Your task to perform on an android device: search for starred emails in the gmail app Image 0: 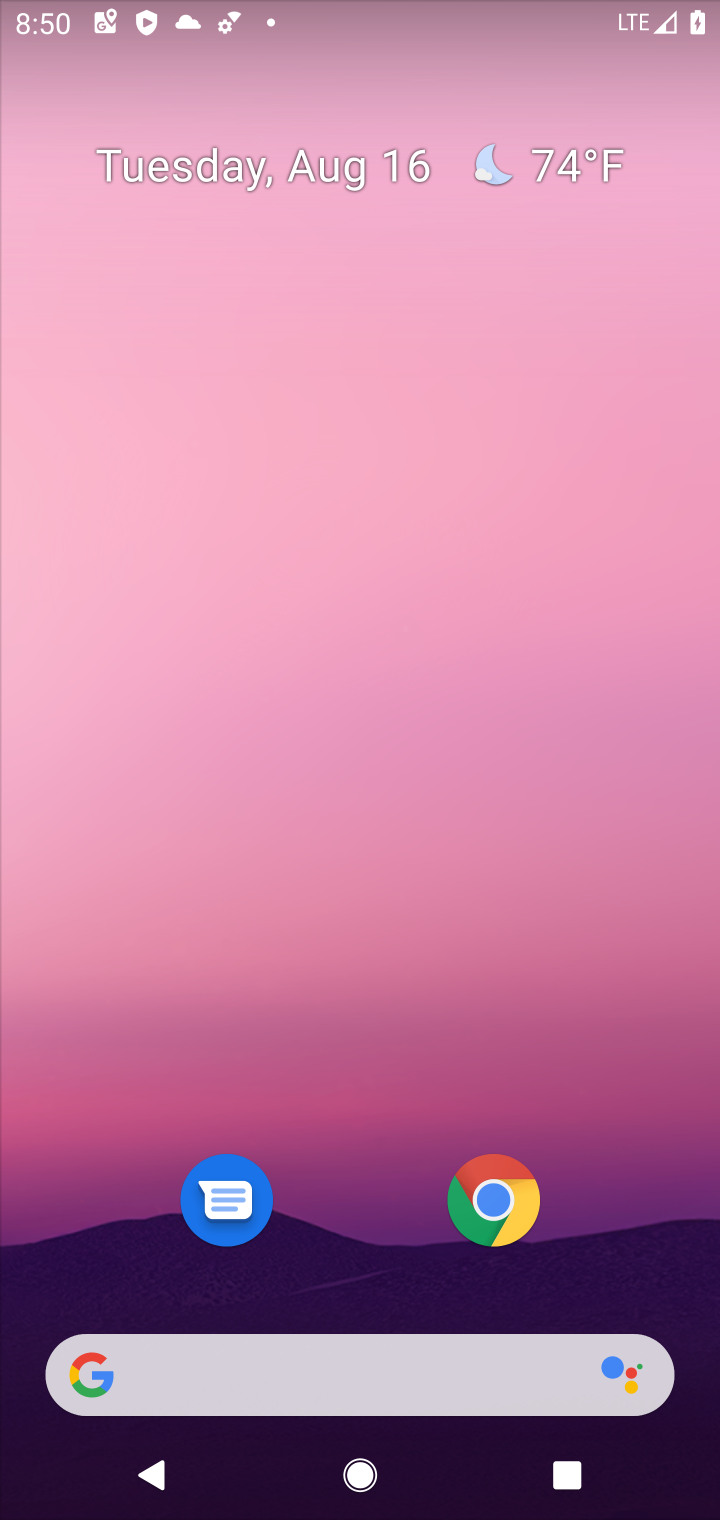
Step 0: drag from (667, 1281) to (622, 493)
Your task to perform on an android device: search for starred emails in the gmail app Image 1: 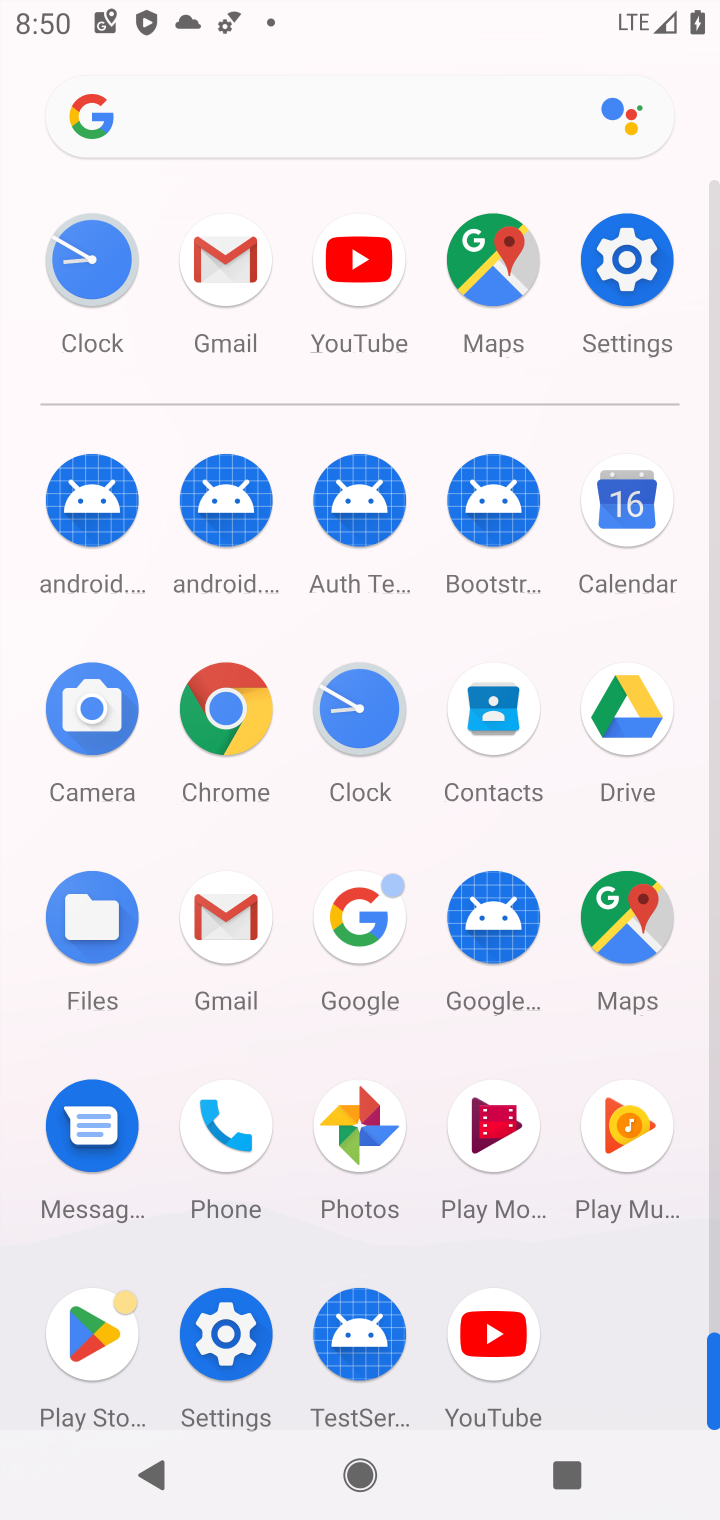
Step 1: click (223, 917)
Your task to perform on an android device: search for starred emails in the gmail app Image 2: 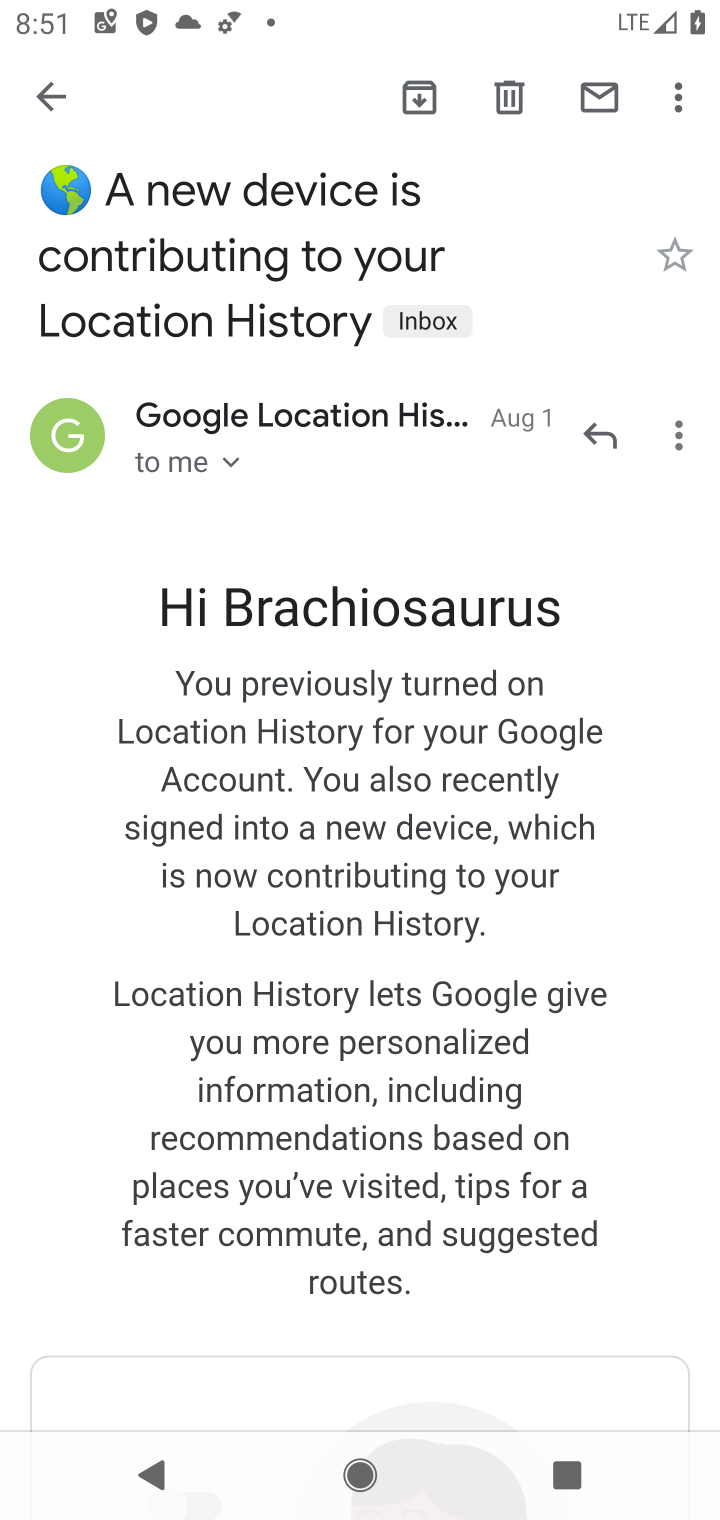
Step 2: press back button
Your task to perform on an android device: search for starred emails in the gmail app Image 3: 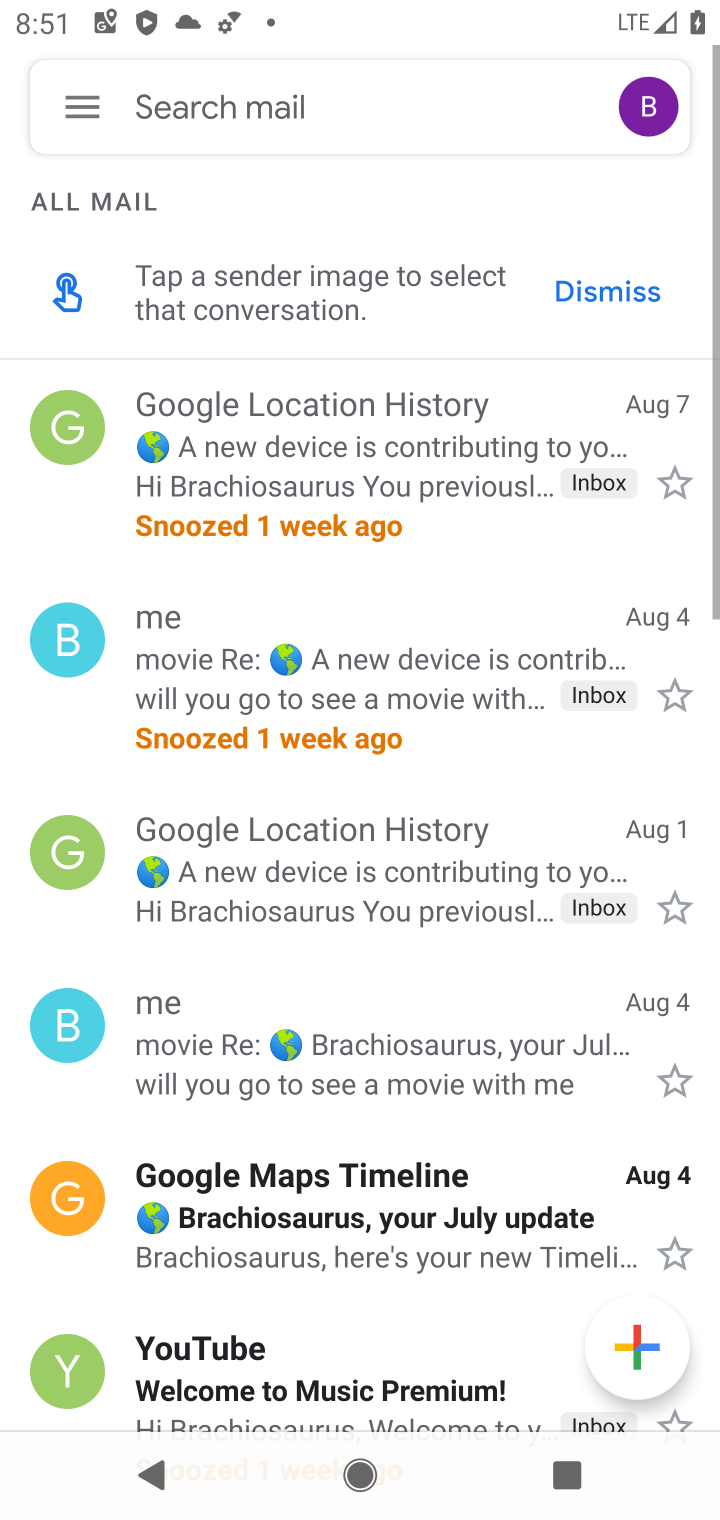
Step 3: press back button
Your task to perform on an android device: search for starred emails in the gmail app Image 4: 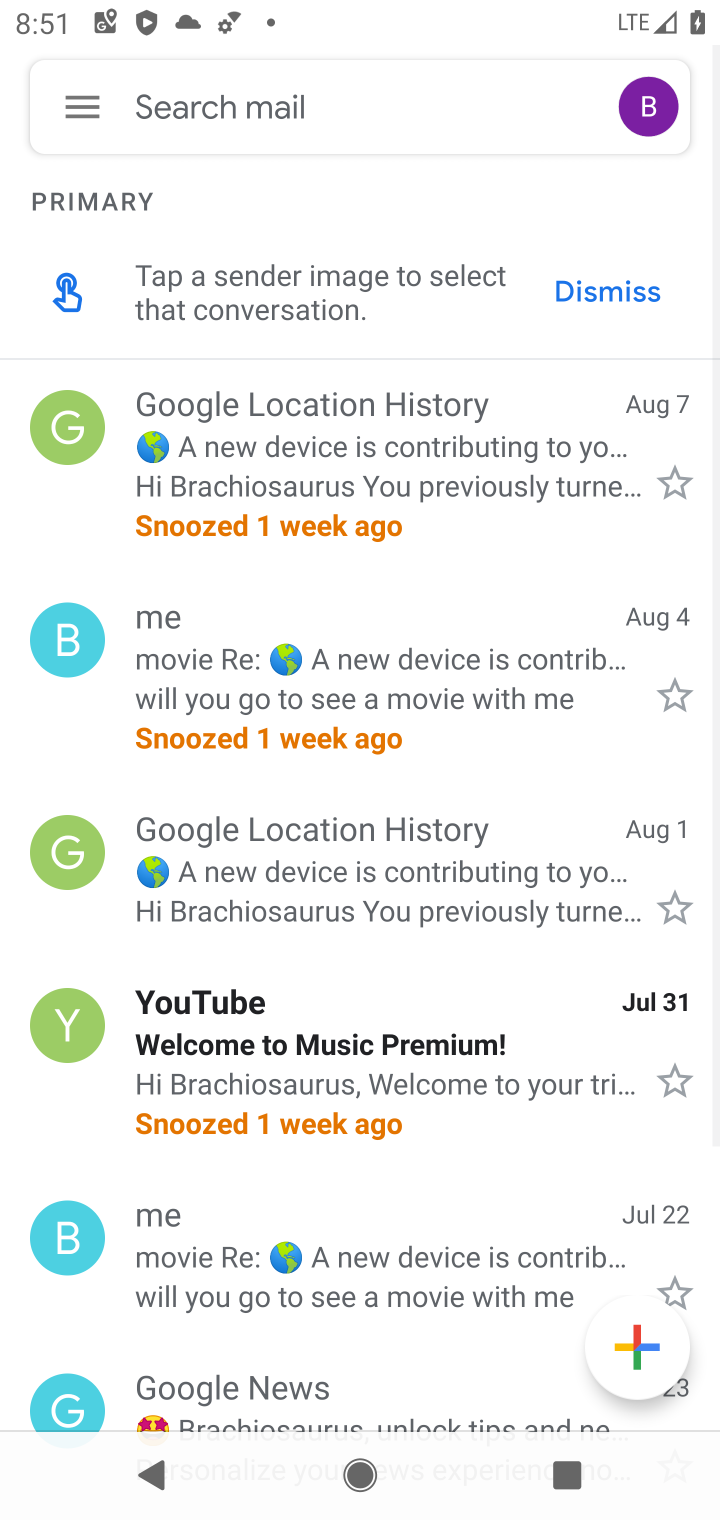
Step 4: click (80, 111)
Your task to perform on an android device: search for starred emails in the gmail app Image 5: 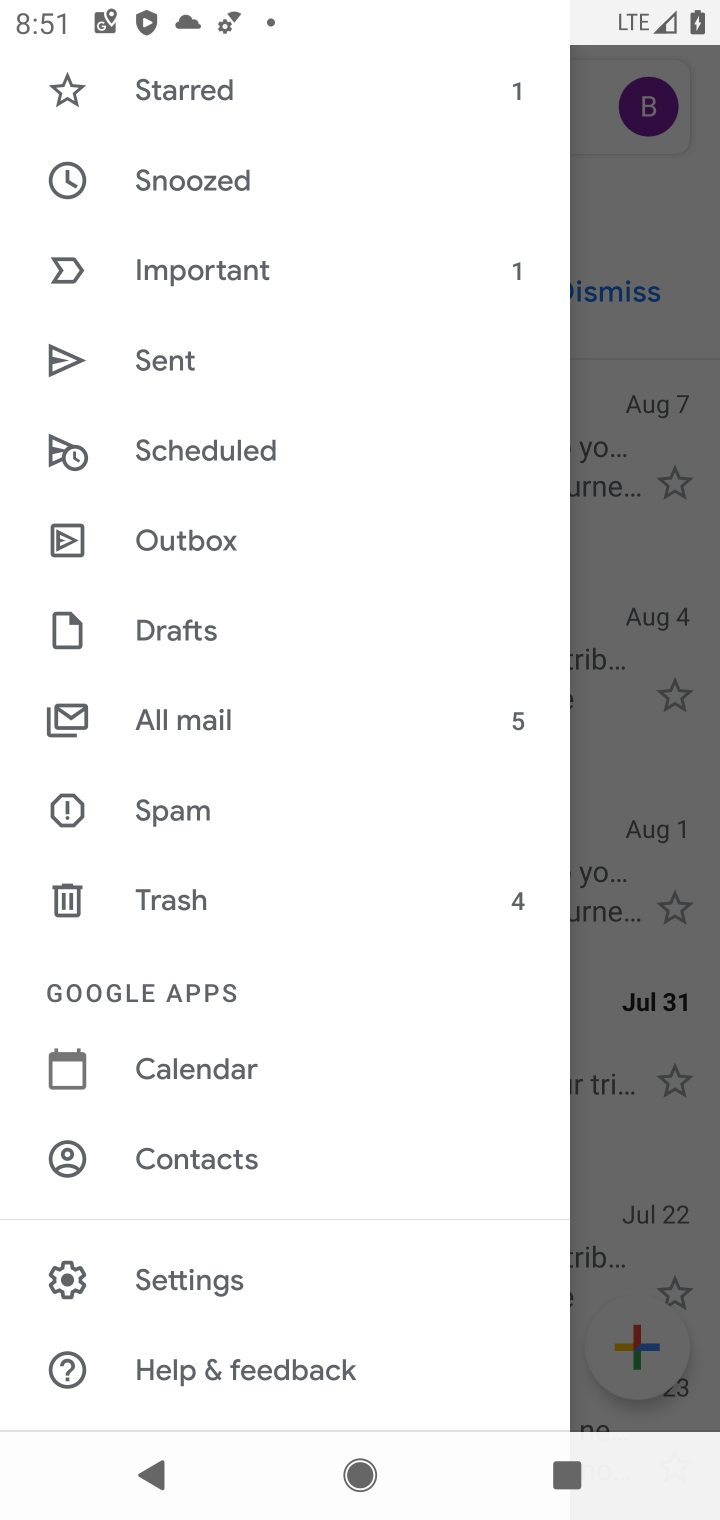
Step 5: drag from (247, 137) to (348, 822)
Your task to perform on an android device: search for starred emails in the gmail app Image 6: 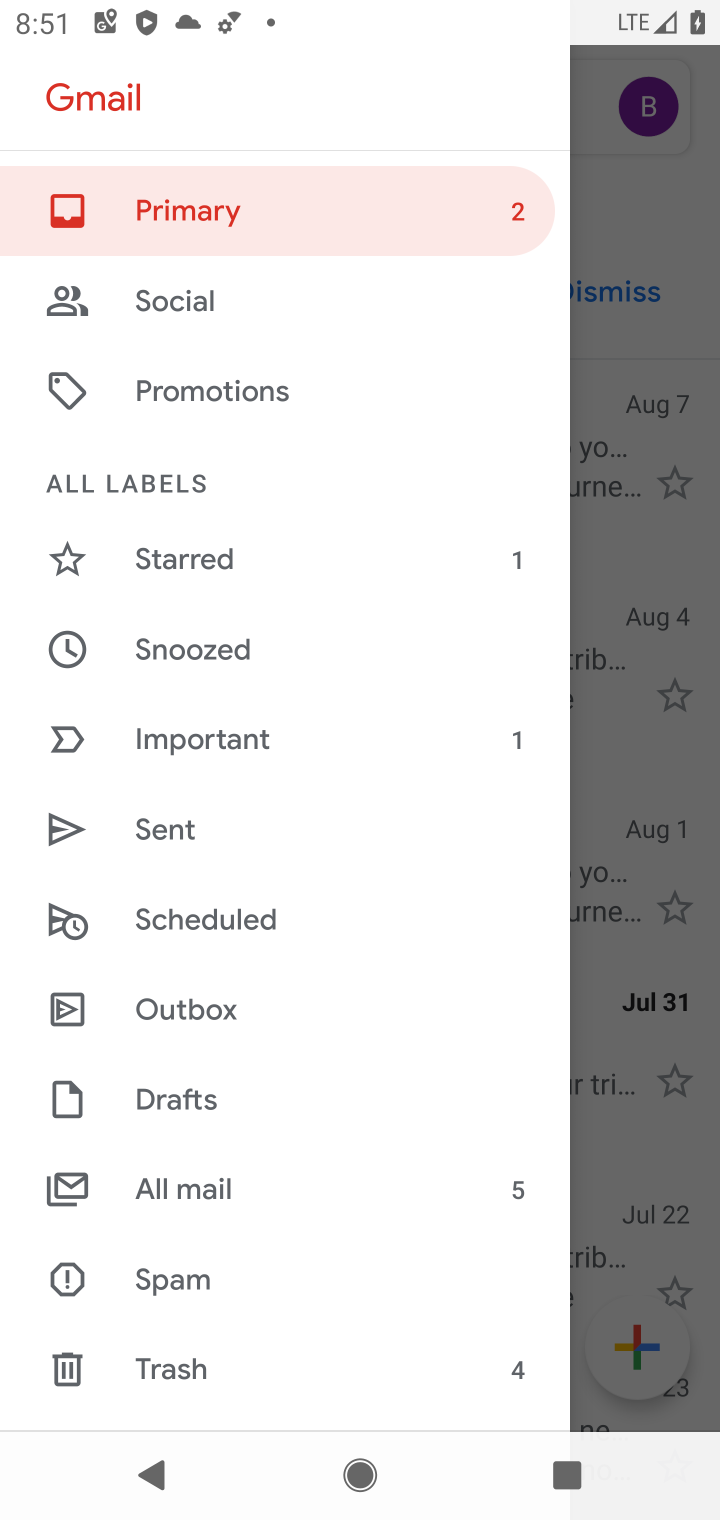
Step 6: click (178, 560)
Your task to perform on an android device: search for starred emails in the gmail app Image 7: 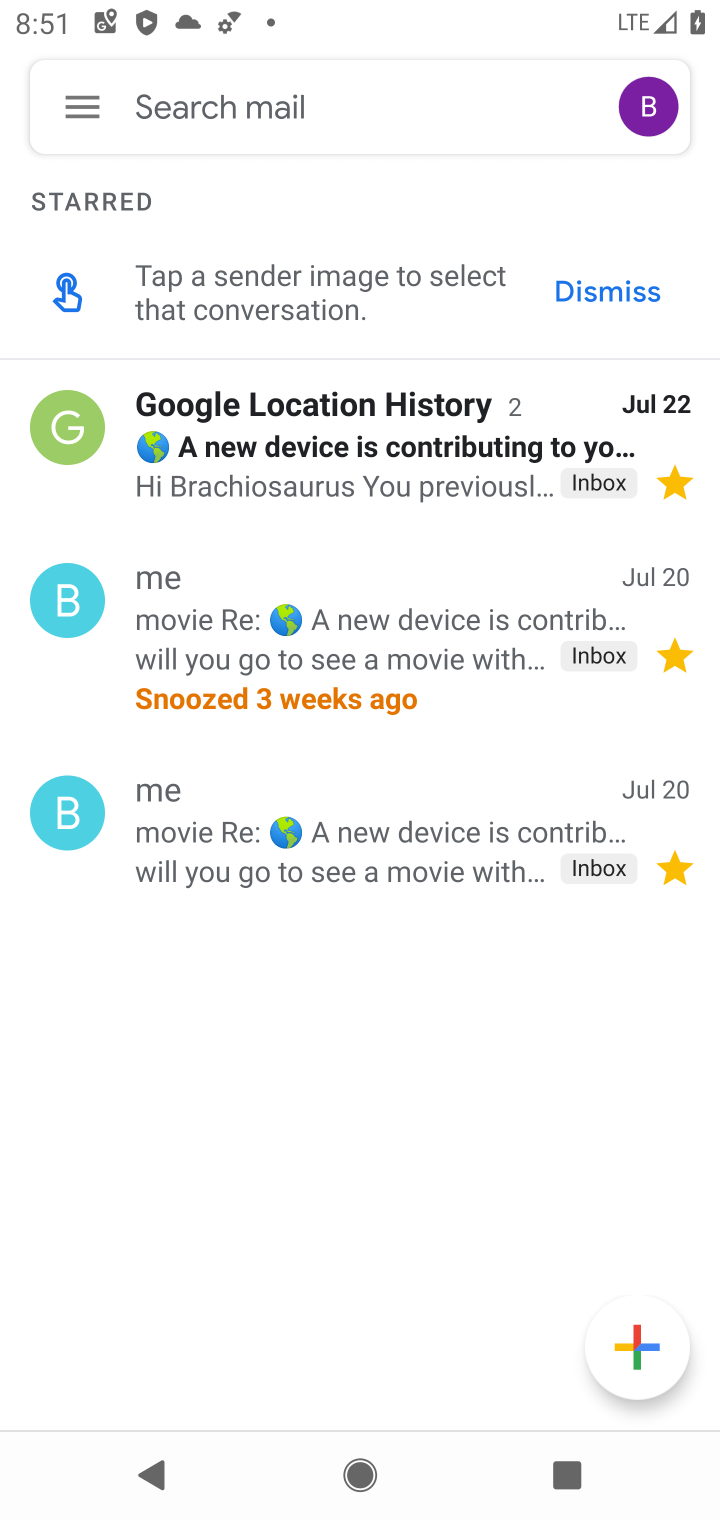
Step 7: task complete